Your task to perform on an android device: toggle priority inbox in the gmail app Image 0: 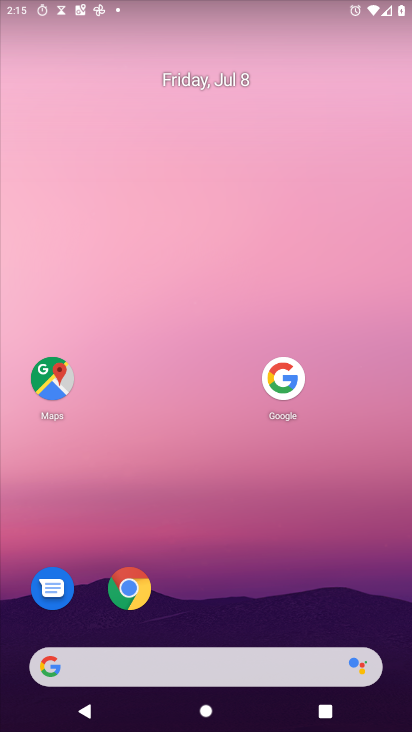
Step 0: drag from (215, 651) to (310, 93)
Your task to perform on an android device: toggle priority inbox in the gmail app Image 1: 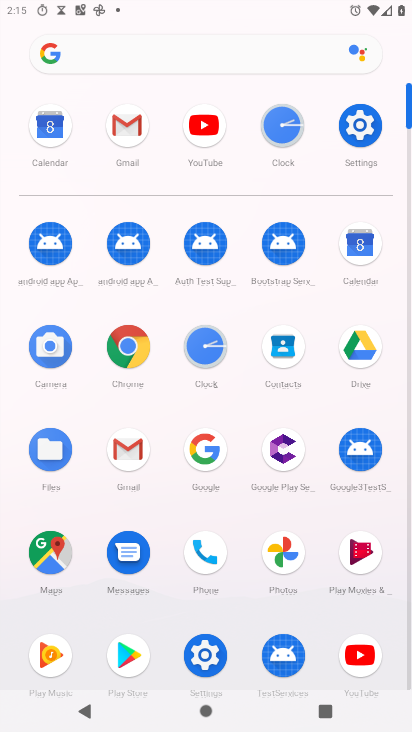
Step 1: click (126, 131)
Your task to perform on an android device: toggle priority inbox in the gmail app Image 2: 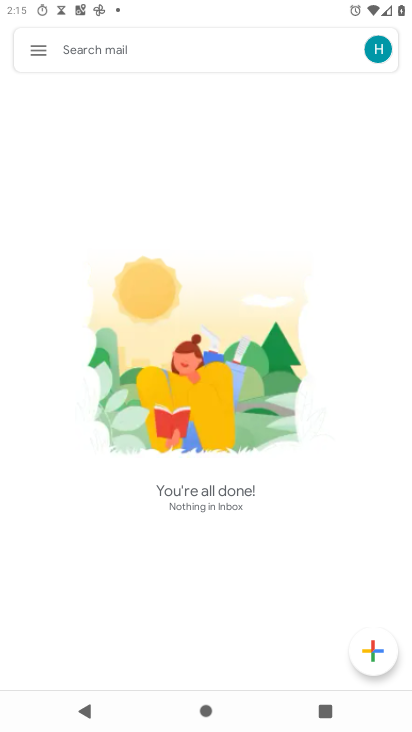
Step 2: click (36, 49)
Your task to perform on an android device: toggle priority inbox in the gmail app Image 3: 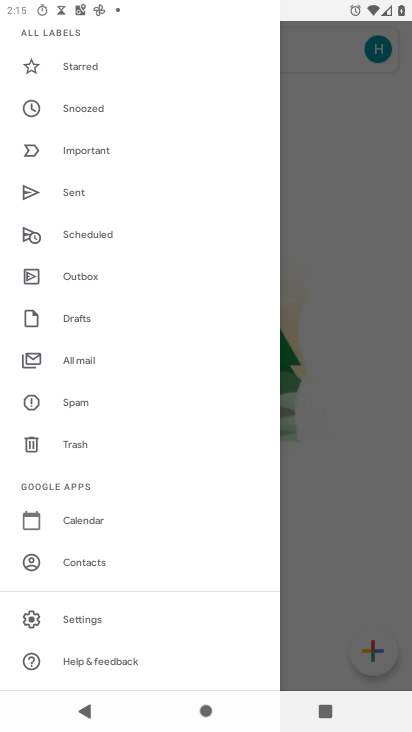
Step 3: click (83, 621)
Your task to perform on an android device: toggle priority inbox in the gmail app Image 4: 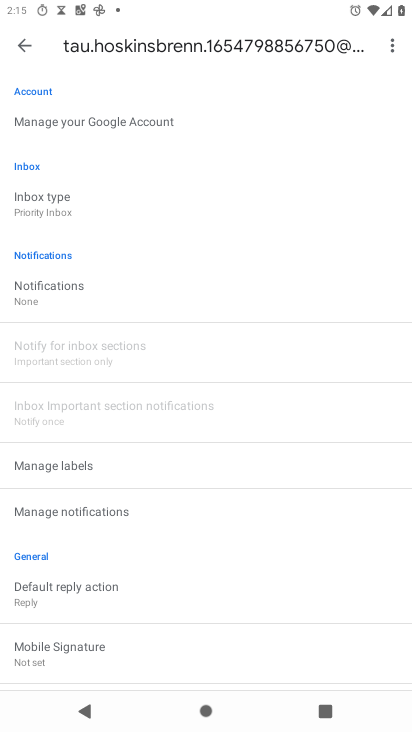
Step 4: click (42, 209)
Your task to perform on an android device: toggle priority inbox in the gmail app Image 5: 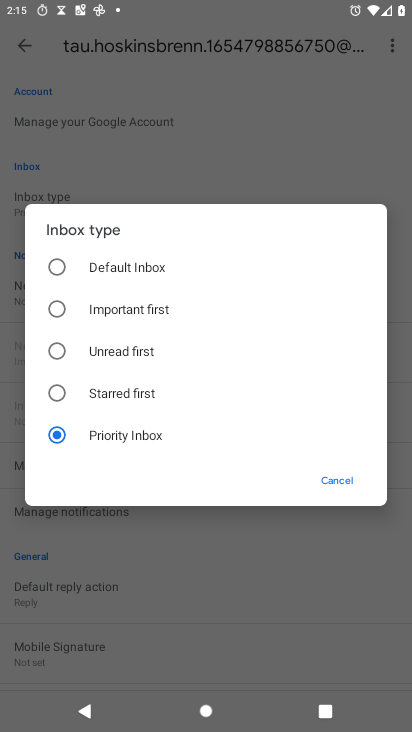
Step 5: click (58, 265)
Your task to perform on an android device: toggle priority inbox in the gmail app Image 6: 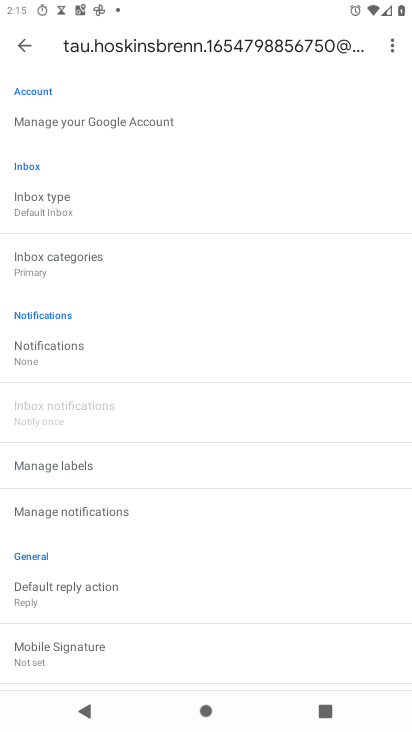
Step 6: task complete